Your task to perform on an android device: delete location history Image 0: 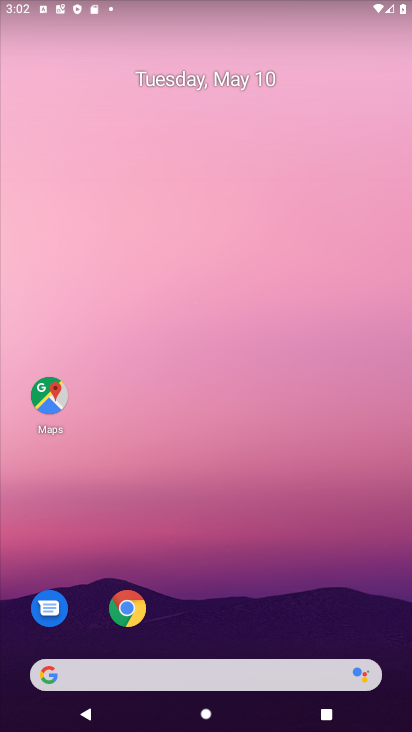
Step 0: click (48, 391)
Your task to perform on an android device: delete location history Image 1: 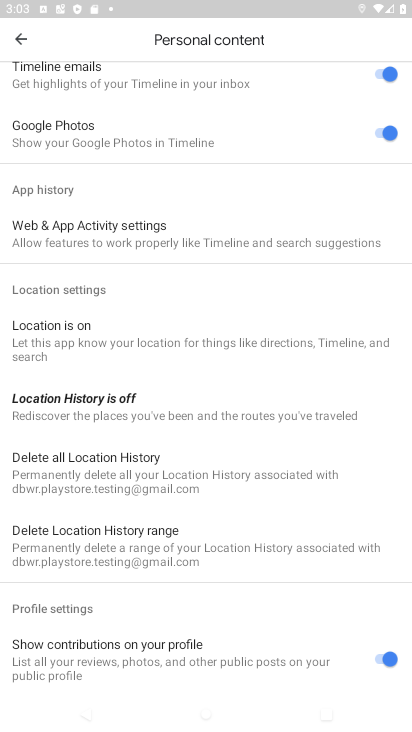
Step 1: click (75, 469)
Your task to perform on an android device: delete location history Image 2: 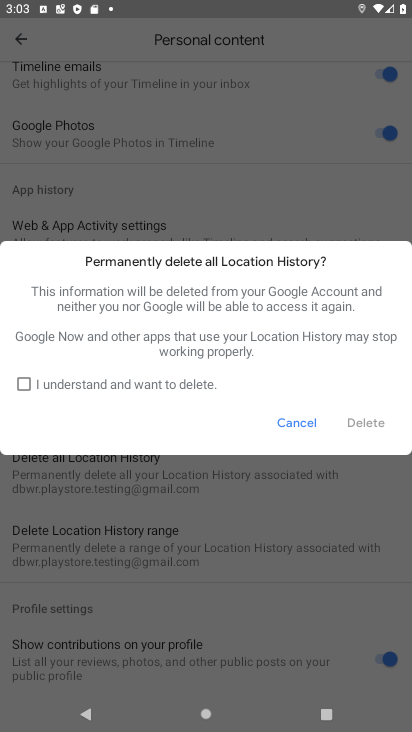
Step 2: click (22, 377)
Your task to perform on an android device: delete location history Image 3: 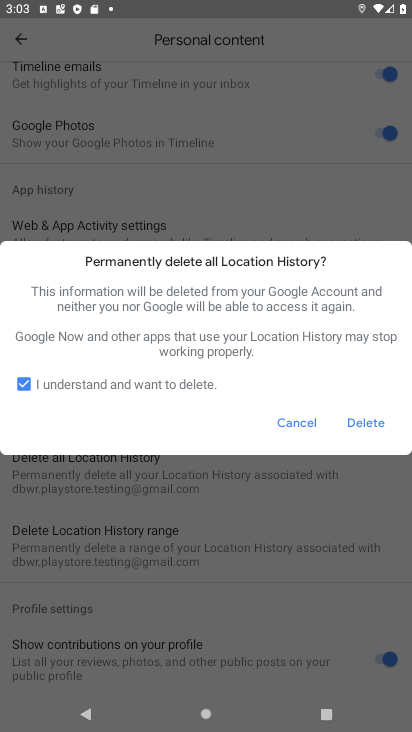
Step 3: click (358, 416)
Your task to perform on an android device: delete location history Image 4: 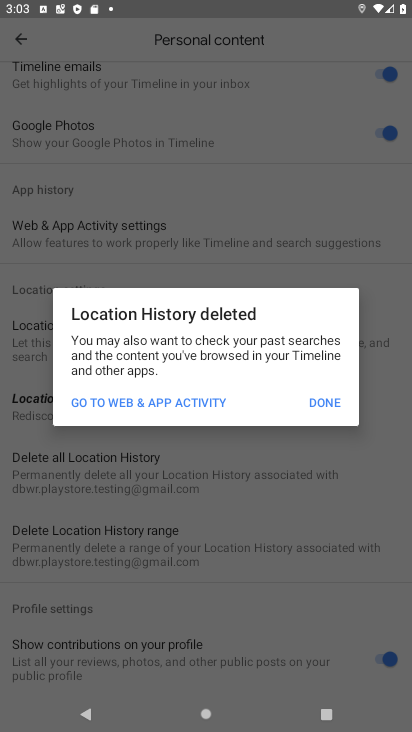
Step 4: click (326, 400)
Your task to perform on an android device: delete location history Image 5: 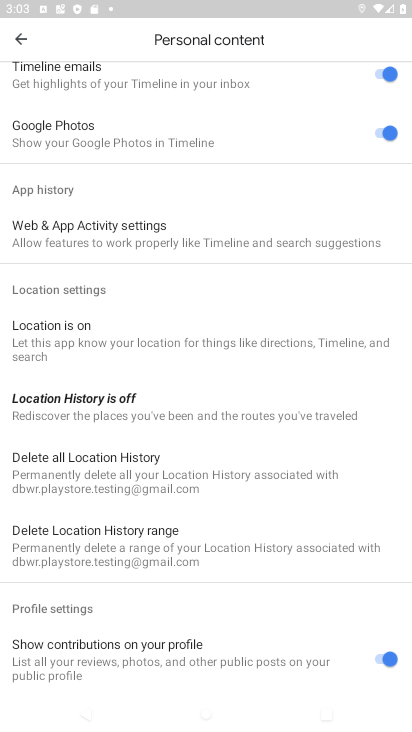
Step 5: task complete